Your task to perform on an android device: Go to eBay Image 0: 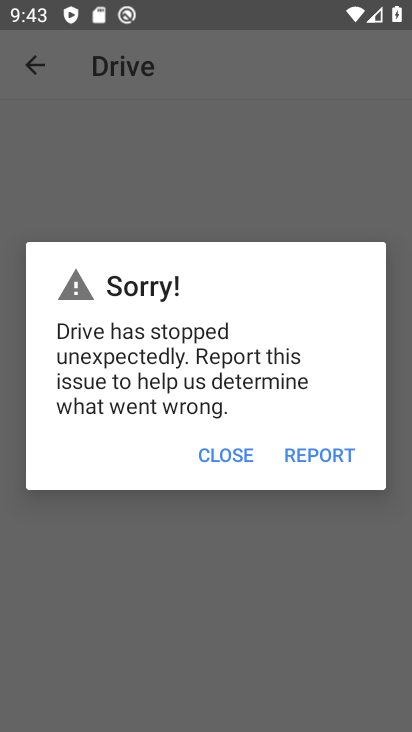
Step 0: press home button
Your task to perform on an android device: Go to eBay Image 1: 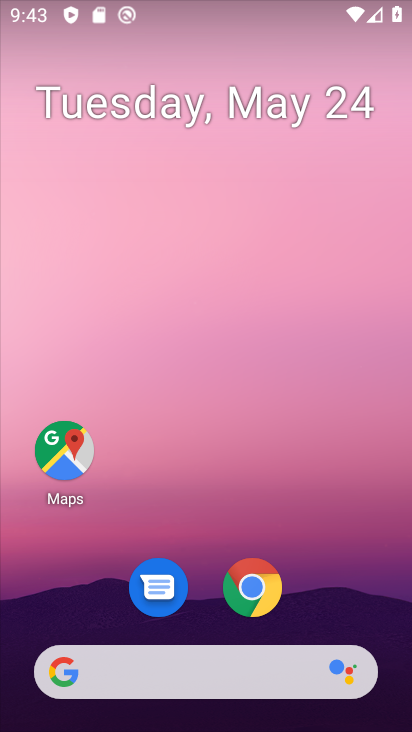
Step 1: click (253, 593)
Your task to perform on an android device: Go to eBay Image 2: 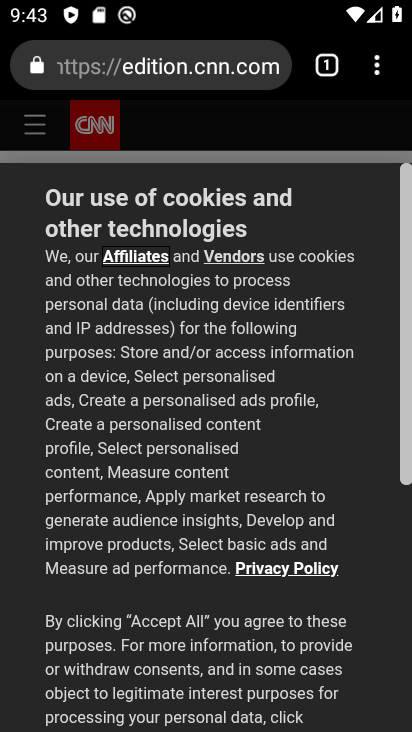
Step 2: click (239, 81)
Your task to perform on an android device: Go to eBay Image 3: 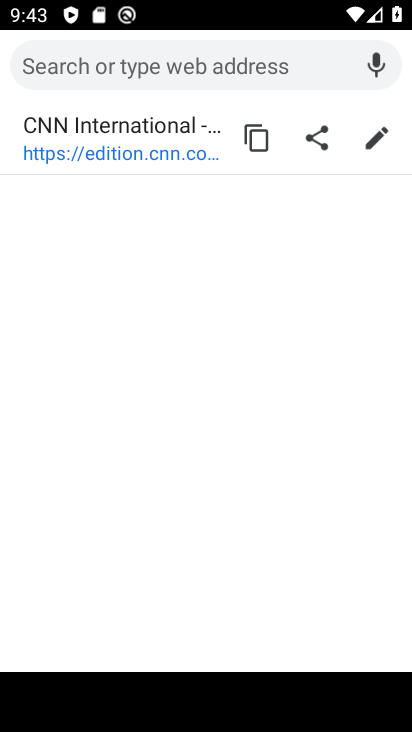
Step 3: type "eBay"
Your task to perform on an android device: Go to eBay Image 4: 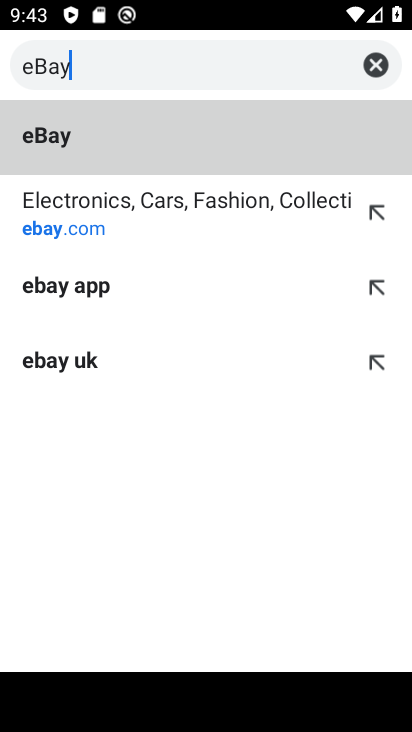
Step 4: click (175, 146)
Your task to perform on an android device: Go to eBay Image 5: 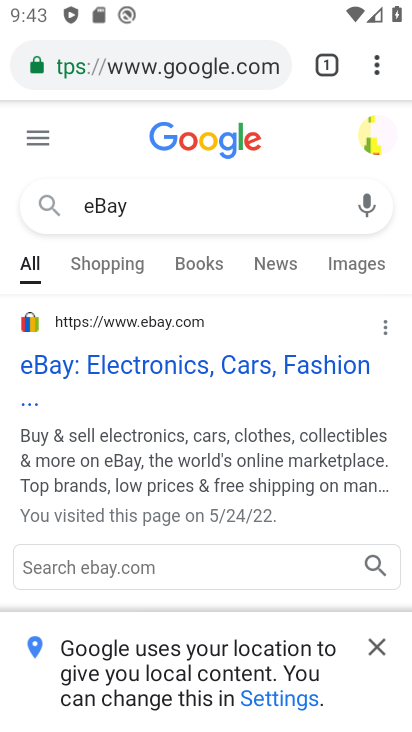
Step 5: click (114, 365)
Your task to perform on an android device: Go to eBay Image 6: 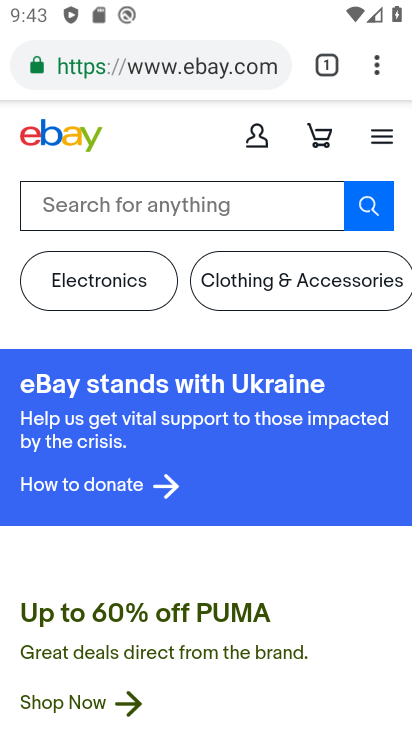
Step 6: task complete